Your task to perform on an android device: Open sound settings Image 0: 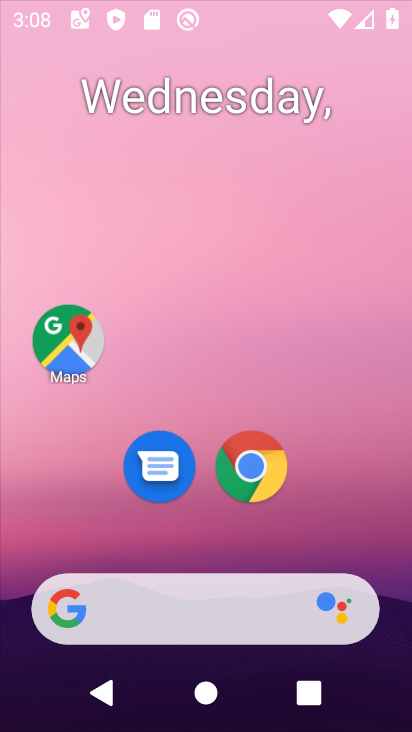
Step 0: drag from (151, 107) to (193, 6)
Your task to perform on an android device: Open sound settings Image 1: 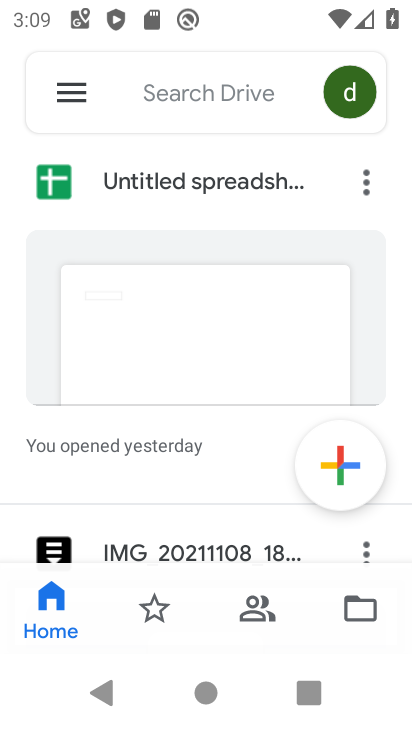
Step 1: press home button
Your task to perform on an android device: Open sound settings Image 2: 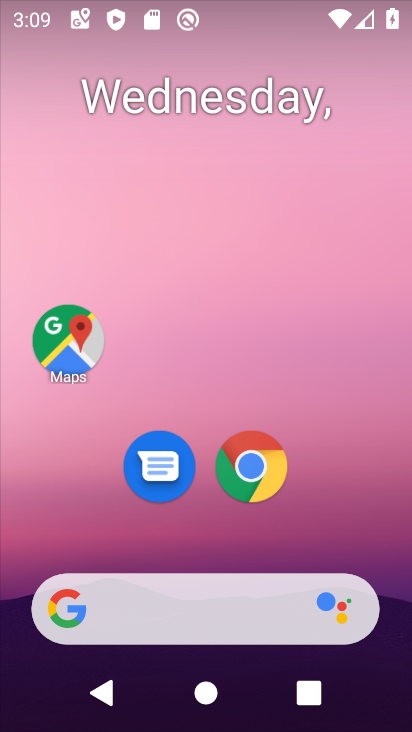
Step 2: drag from (210, 570) to (201, 0)
Your task to perform on an android device: Open sound settings Image 3: 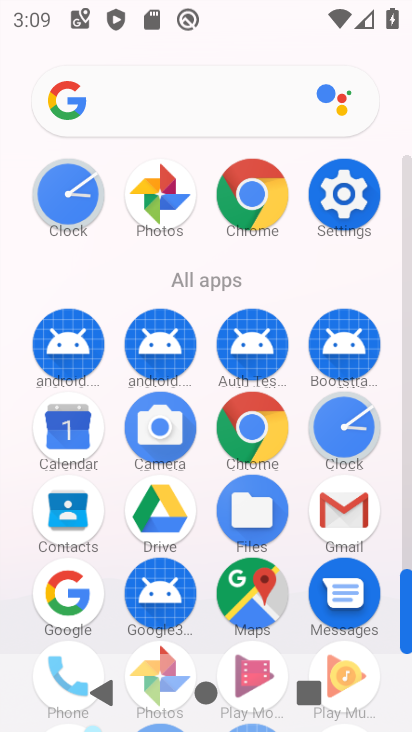
Step 3: click (338, 193)
Your task to perform on an android device: Open sound settings Image 4: 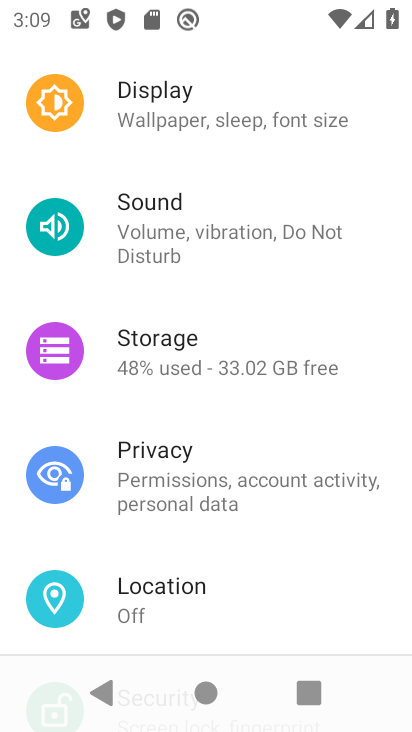
Step 4: drag from (258, 446) to (238, 372)
Your task to perform on an android device: Open sound settings Image 5: 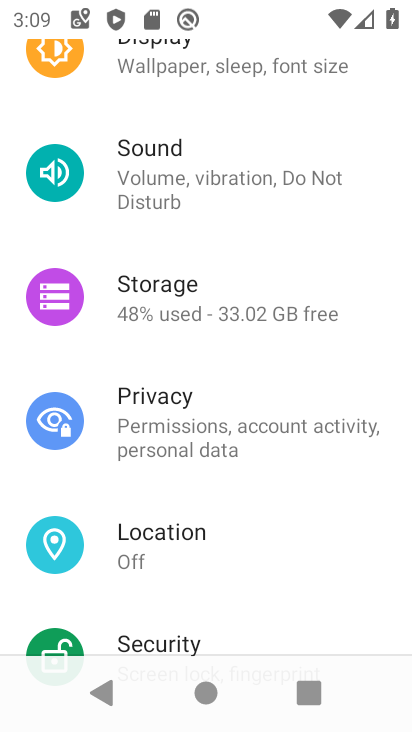
Step 5: click (185, 201)
Your task to perform on an android device: Open sound settings Image 6: 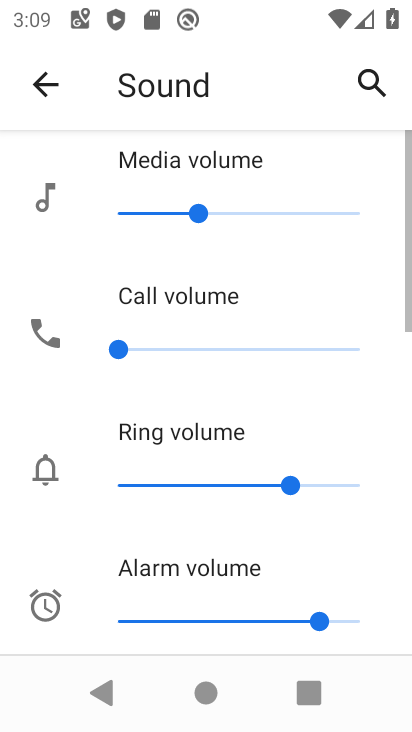
Step 6: task complete